Your task to perform on an android device: check out phone information Image 0: 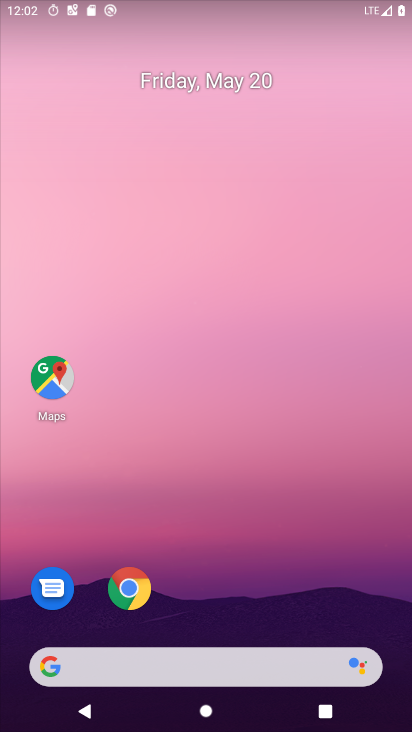
Step 0: press home button
Your task to perform on an android device: check out phone information Image 1: 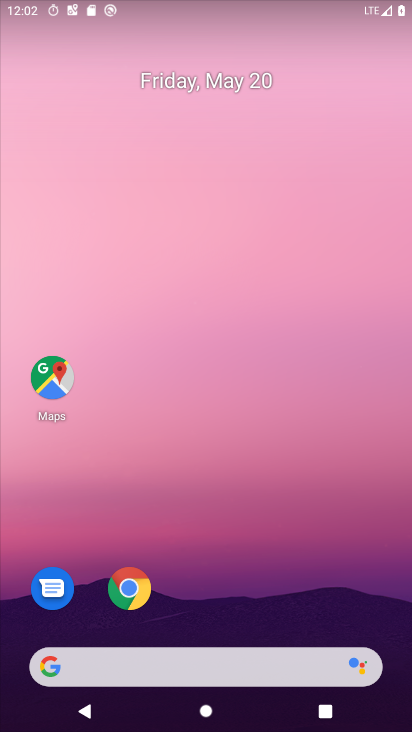
Step 1: drag from (182, 670) to (351, 262)
Your task to perform on an android device: check out phone information Image 2: 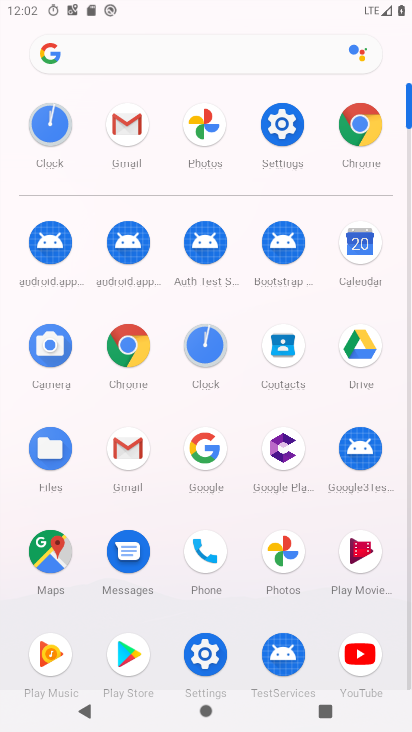
Step 2: click (270, 131)
Your task to perform on an android device: check out phone information Image 3: 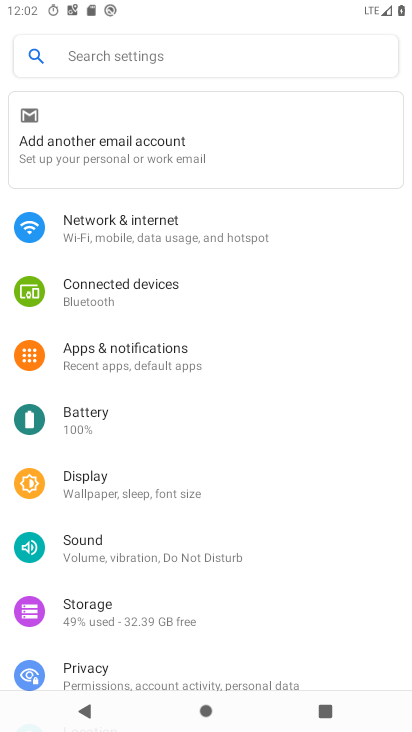
Step 3: drag from (314, 631) to (331, 123)
Your task to perform on an android device: check out phone information Image 4: 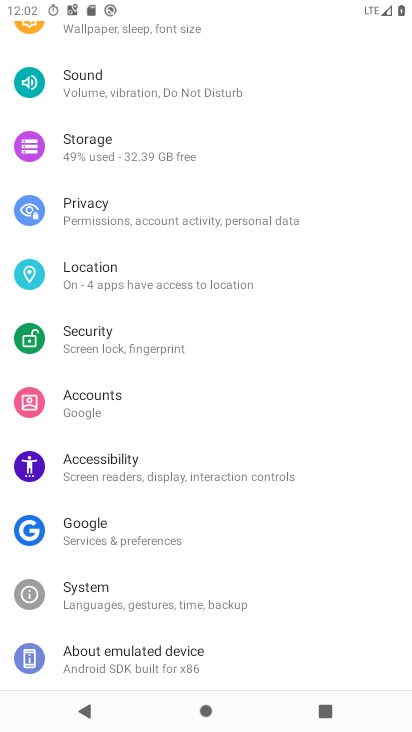
Step 4: drag from (288, 620) to (318, 154)
Your task to perform on an android device: check out phone information Image 5: 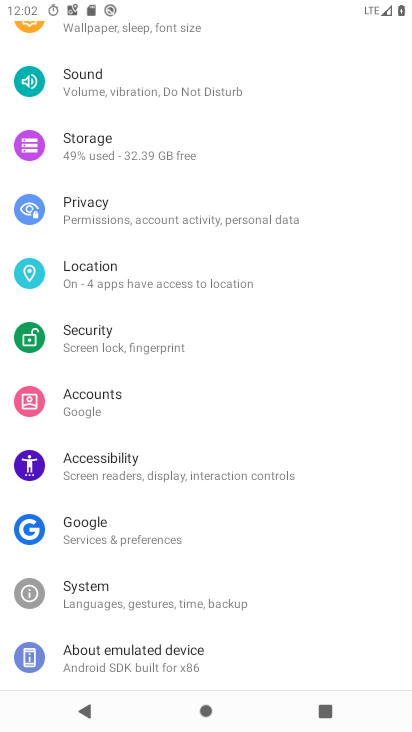
Step 5: click (152, 656)
Your task to perform on an android device: check out phone information Image 6: 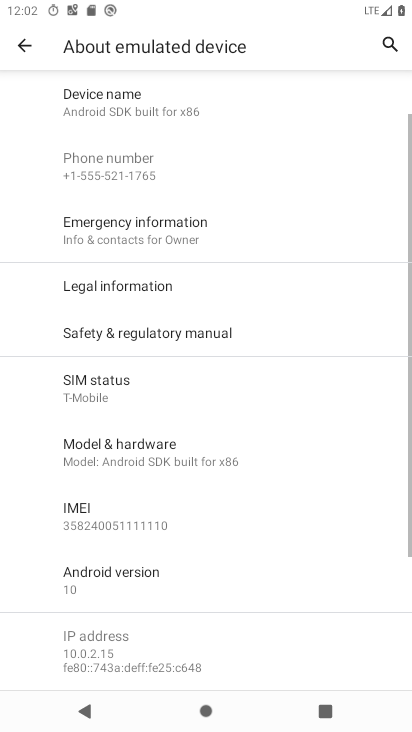
Step 6: task complete